Your task to perform on an android device: turn off javascript in the chrome app Image 0: 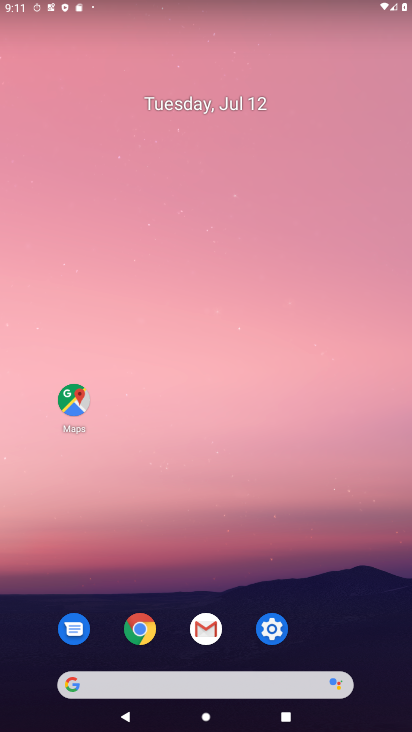
Step 0: click (149, 635)
Your task to perform on an android device: turn off javascript in the chrome app Image 1: 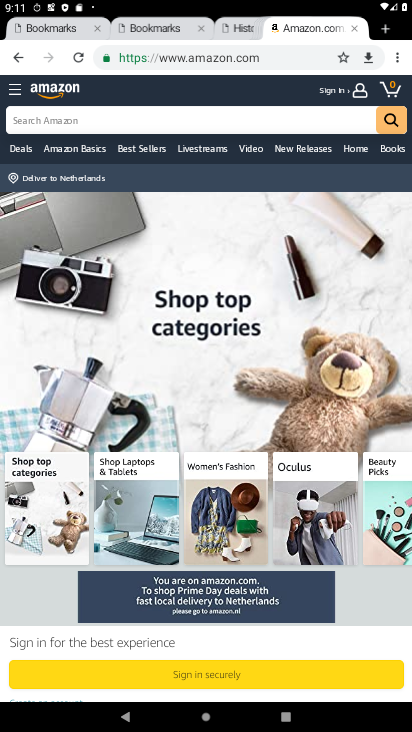
Step 1: click (405, 69)
Your task to perform on an android device: turn off javascript in the chrome app Image 2: 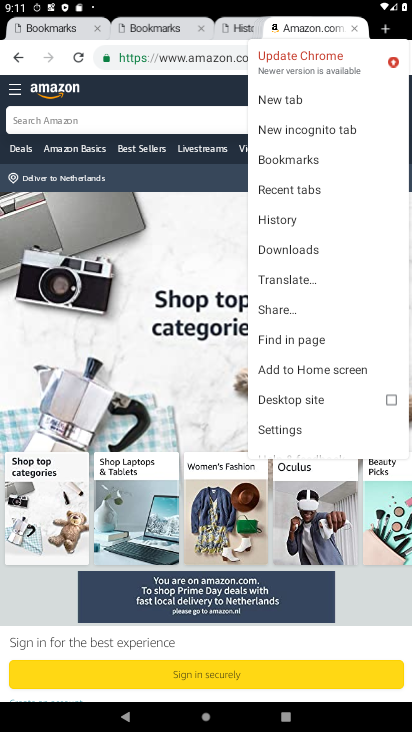
Step 2: click (301, 432)
Your task to perform on an android device: turn off javascript in the chrome app Image 3: 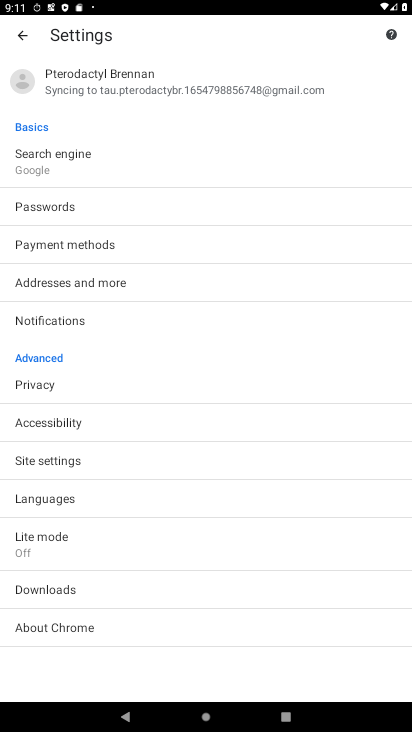
Step 3: click (57, 453)
Your task to perform on an android device: turn off javascript in the chrome app Image 4: 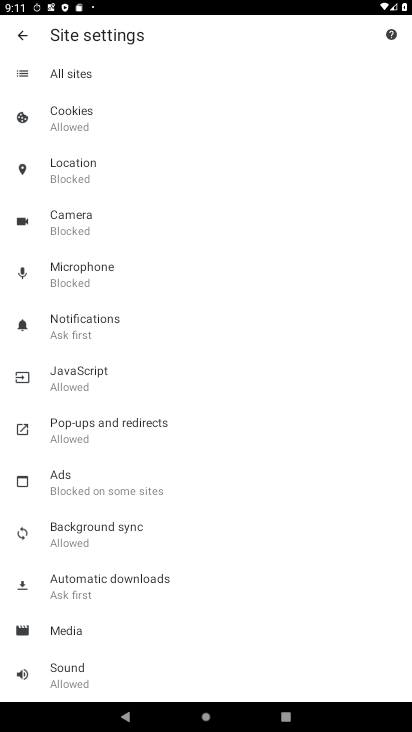
Step 4: click (85, 391)
Your task to perform on an android device: turn off javascript in the chrome app Image 5: 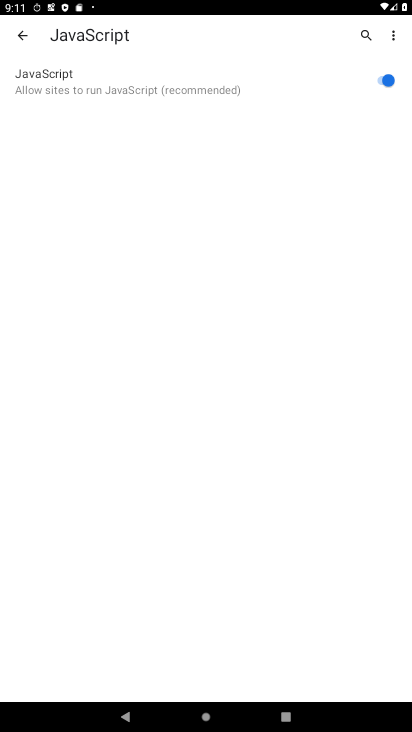
Step 5: click (382, 90)
Your task to perform on an android device: turn off javascript in the chrome app Image 6: 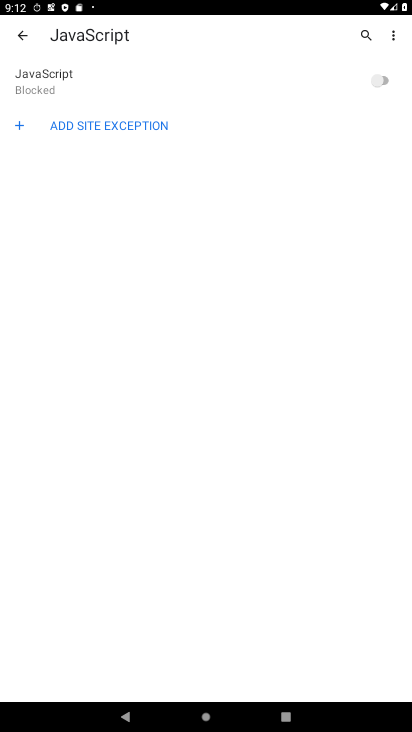
Step 6: task complete